Your task to perform on an android device: toggle location history Image 0: 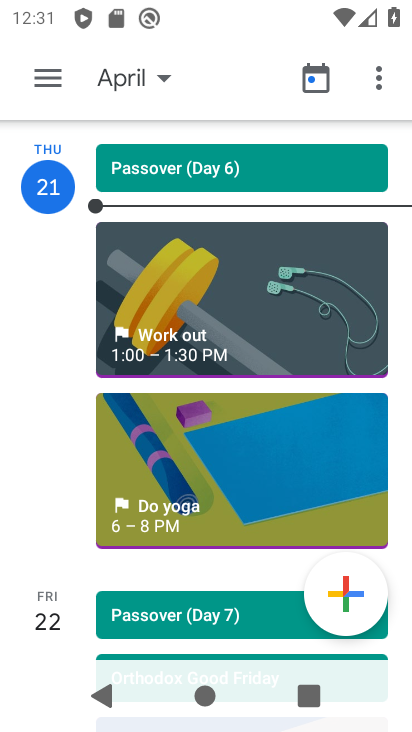
Step 0: press home button
Your task to perform on an android device: toggle location history Image 1: 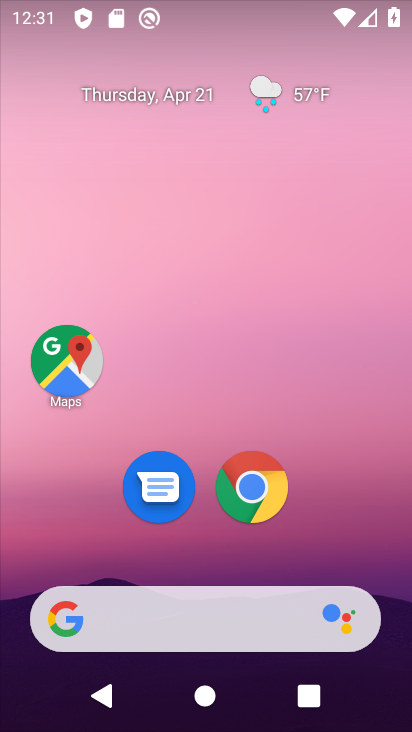
Step 1: drag from (347, 506) to (344, 117)
Your task to perform on an android device: toggle location history Image 2: 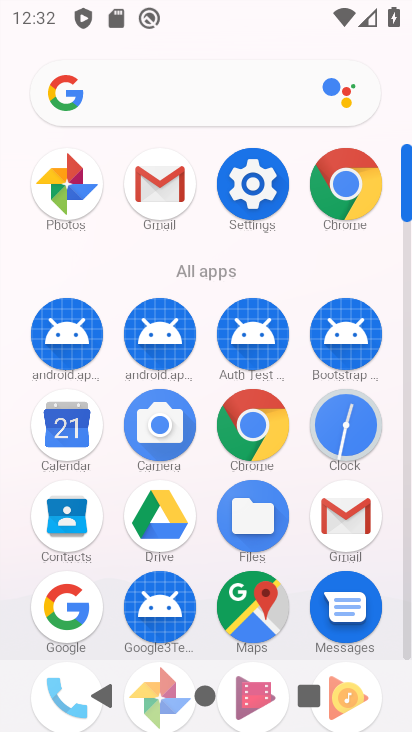
Step 2: click (240, 196)
Your task to perform on an android device: toggle location history Image 3: 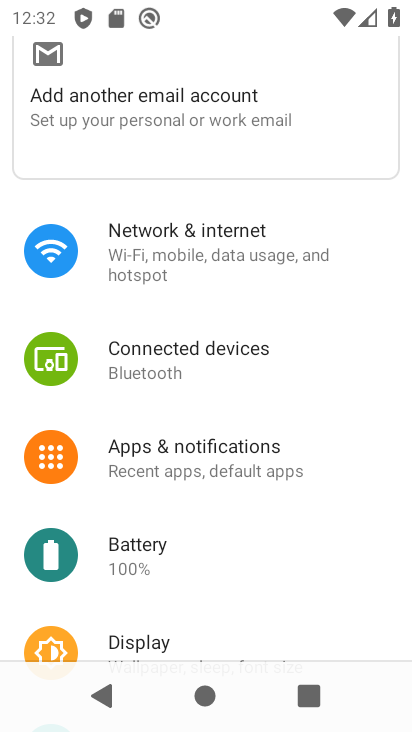
Step 3: drag from (286, 539) to (288, 296)
Your task to perform on an android device: toggle location history Image 4: 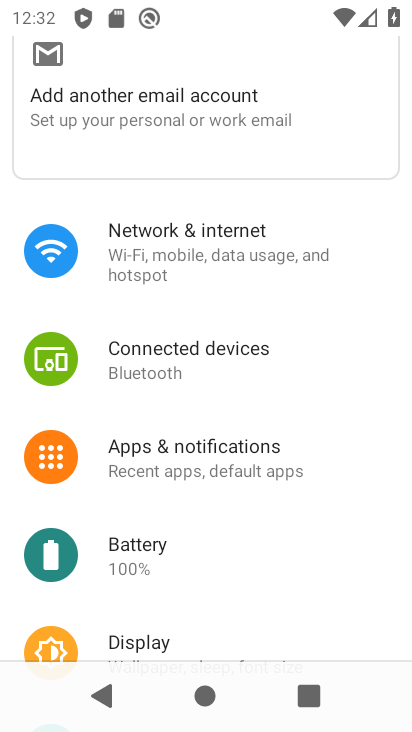
Step 4: drag from (317, 598) to (317, 314)
Your task to perform on an android device: toggle location history Image 5: 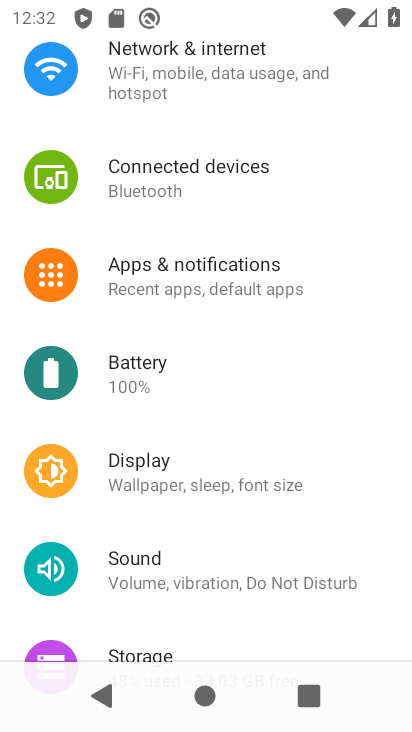
Step 5: drag from (315, 605) to (333, 288)
Your task to perform on an android device: toggle location history Image 6: 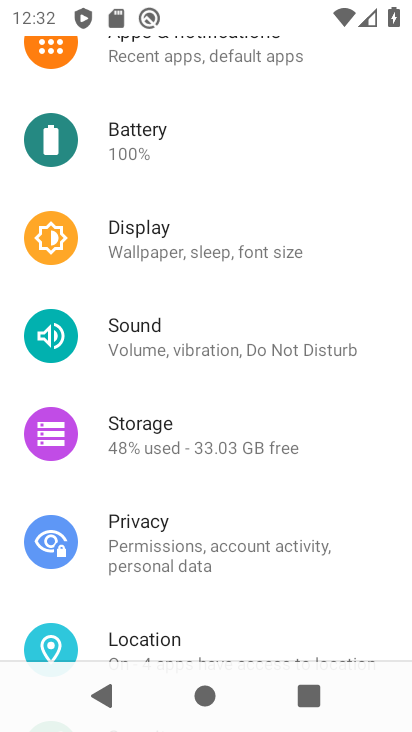
Step 6: drag from (334, 544) to (379, 252)
Your task to perform on an android device: toggle location history Image 7: 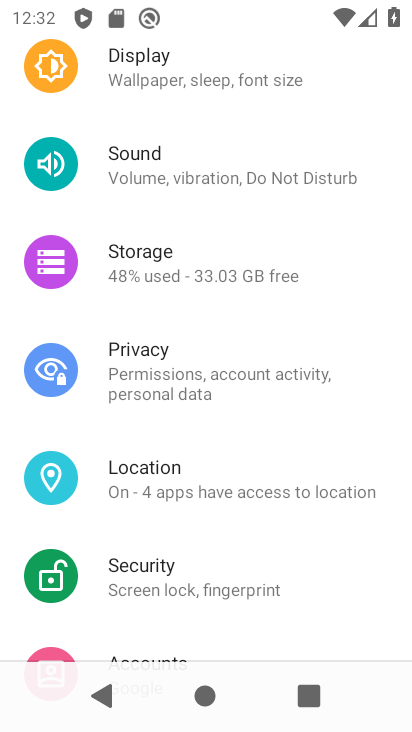
Step 7: drag from (318, 567) to (328, 286)
Your task to perform on an android device: toggle location history Image 8: 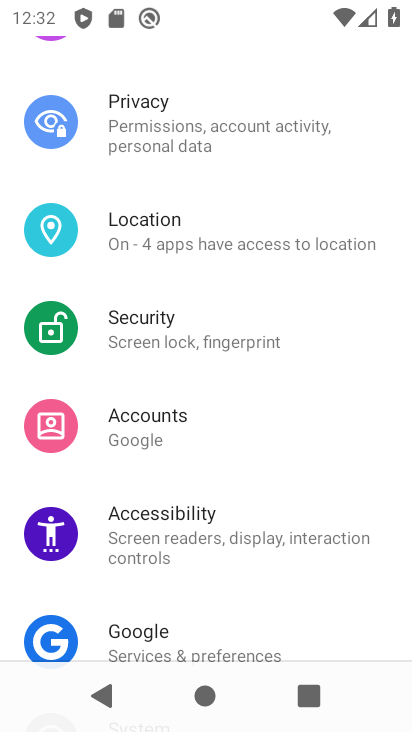
Step 8: drag from (299, 450) to (299, 227)
Your task to perform on an android device: toggle location history Image 9: 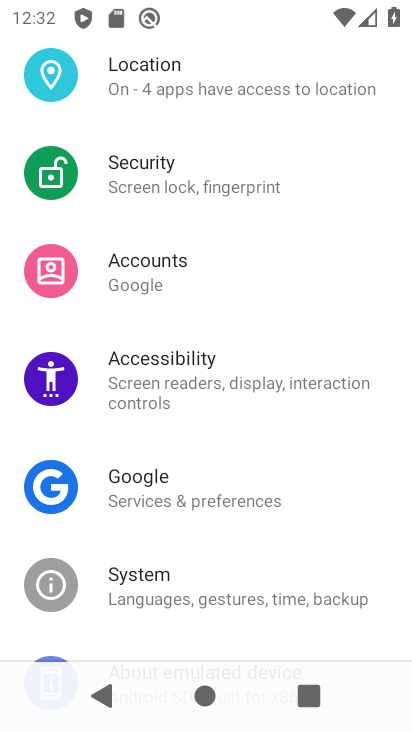
Step 9: click (165, 81)
Your task to perform on an android device: toggle location history Image 10: 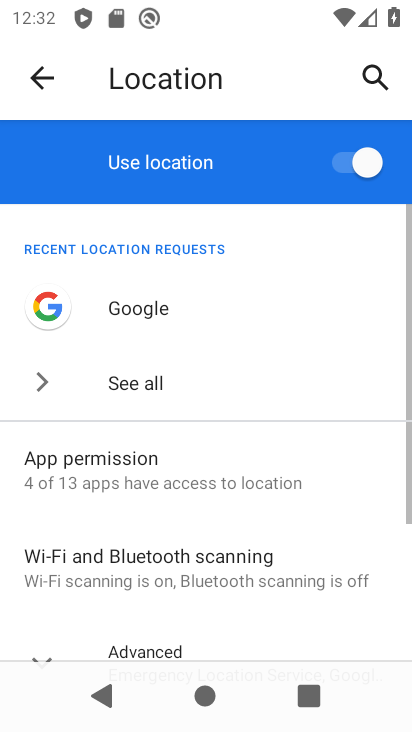
Step 10: drag from (357, 554) to (340, 290)
Your task to perform on an android device: toggle location history Image 11: 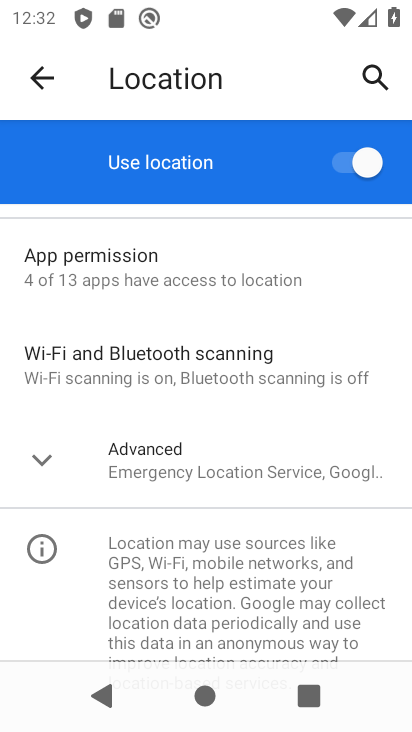
Step 11: click (244, 452)
Your task to perform on an android device: toggle location history Image 12: 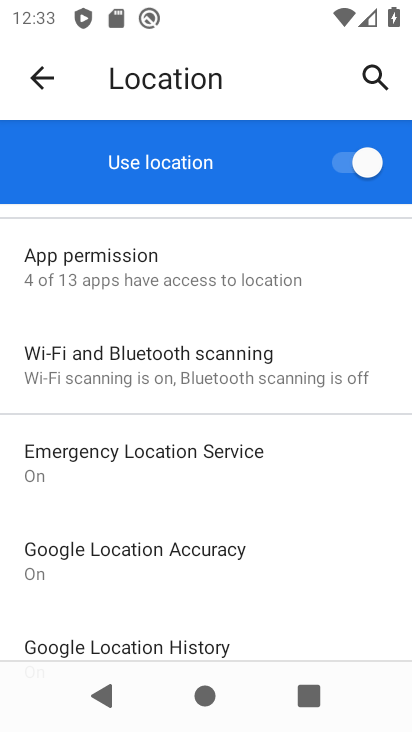
Step 12: drag from (278, 603) to (311, 380)
Your task to perform on an android device: toggle location history Image 13: 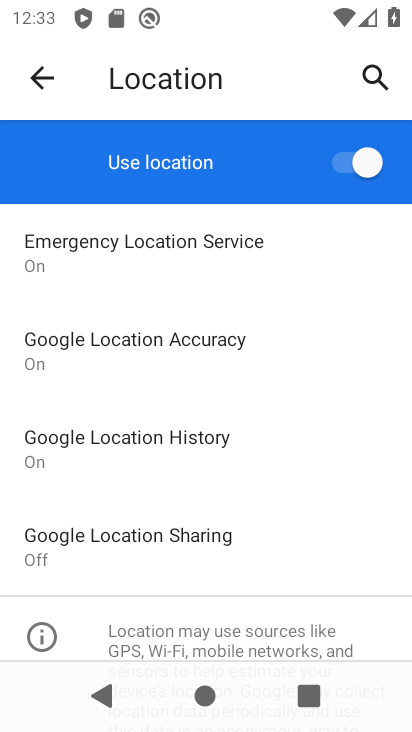
Step 13: click (167, 440)
Your task to perform on an android device: toggle location history Image 14: 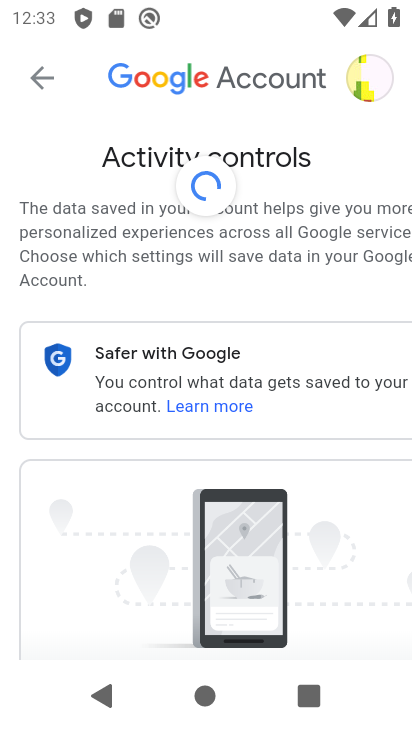
Step 14: drag from (38, 619) to (98, 302)
Your task to perform on an android device: toggle location history Image 15: 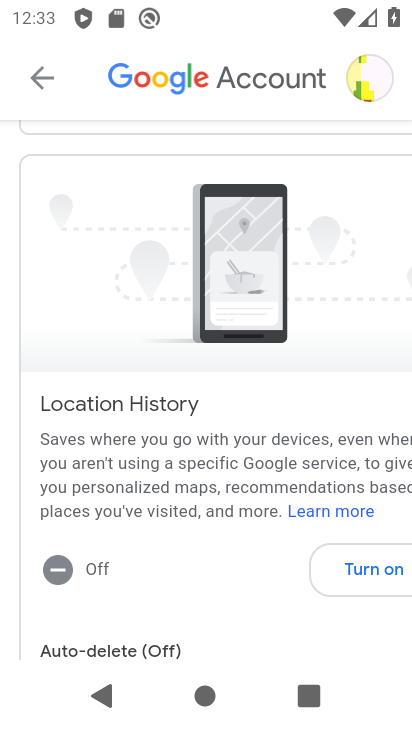
Step 15: drag from (224, 589) to (164, 397)
Your task to perform on an android device: toggle location history Image 16: 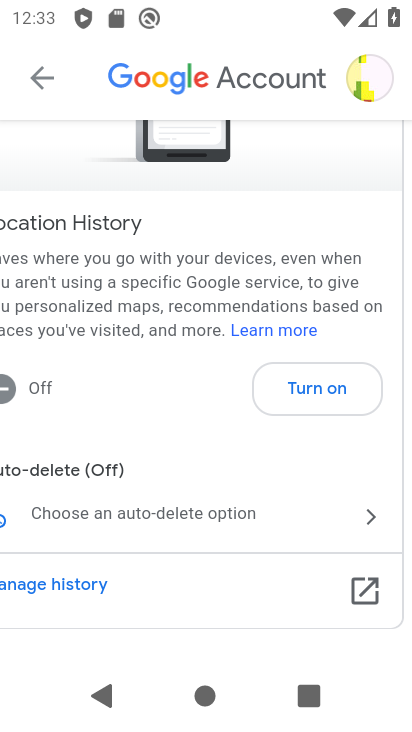
Step 16: click (308, 393)
Your task to perform on an android device: toggle location history Image 17: 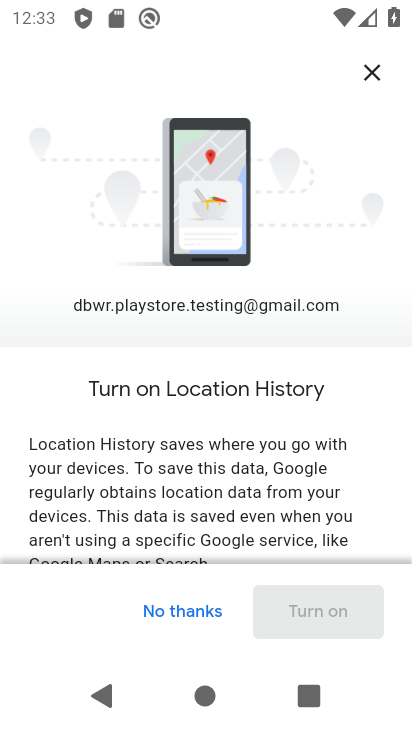
Step 17: drag from (157, 476) to (149, 224)
Your task to perform on an android device: toggle location history Image 18: 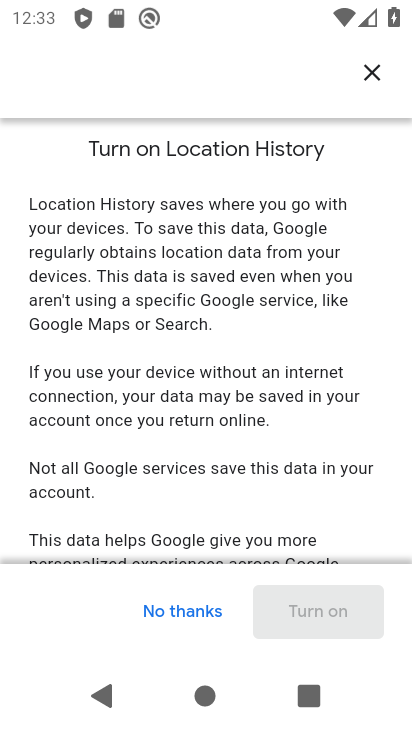
Step 18: drag from (191, 471) to (145, 247)
Your task to perform on an android device: toggle location history Image 19: 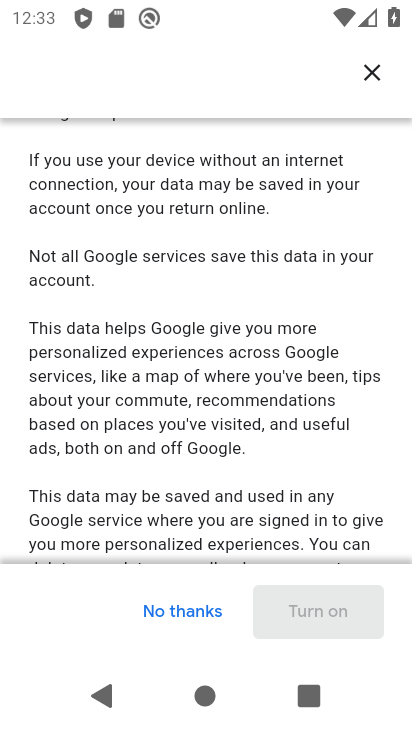
Step 19: drag from (203, 491) to (161, 246)
Your task to perform on an android device: toggle location history Image 20: 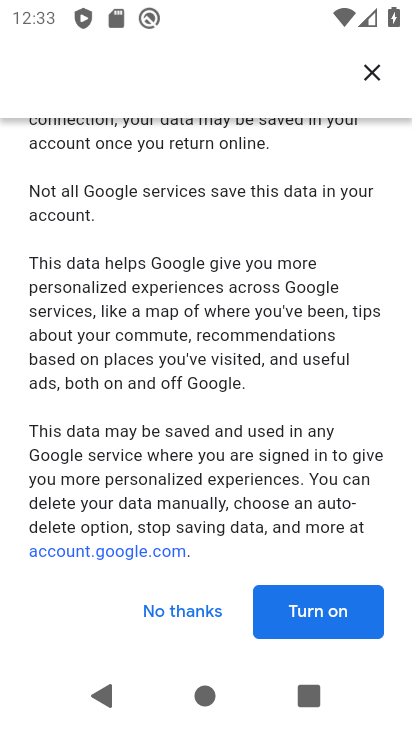
Step 20: click (309, 611)
Your task to perform on an android device: toggle location history Image 21: 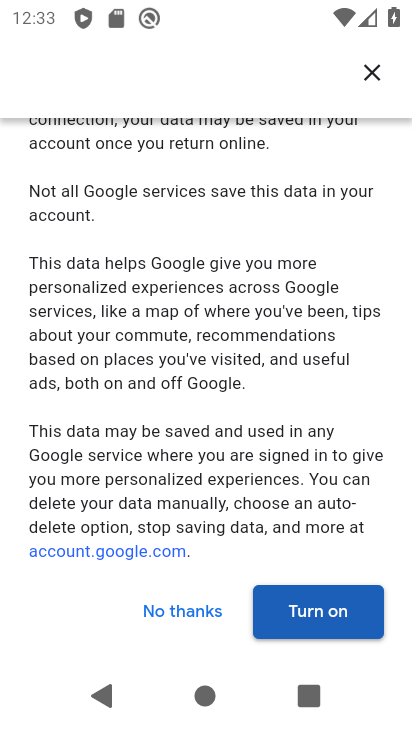
Step 21: click (332, 619)
Your task to perform on an android device: toggle location history Image 22: 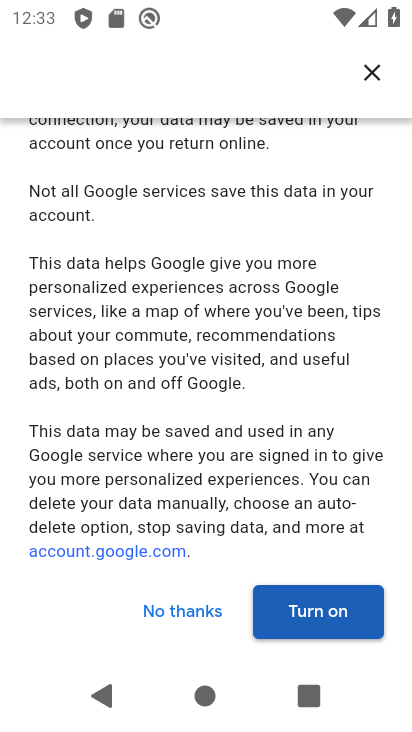
Step 22: click (319, 607)
Your task to perform on an android device: toggle location history Image 23: 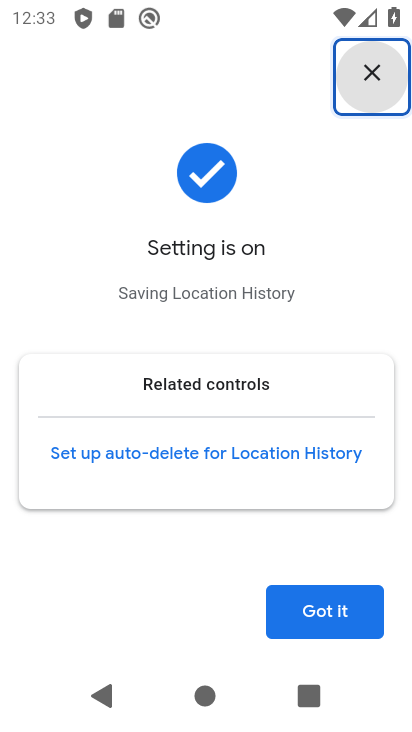
Step 23: click (339, 609)
Your task to perform on an android device: toggle location history Image 24: 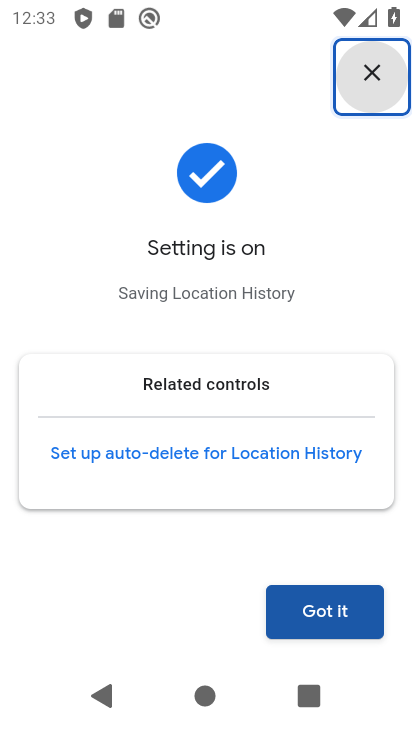
Step 24: task complete